Your task to perform on an android device: turn on bluetooth scan Image 0: 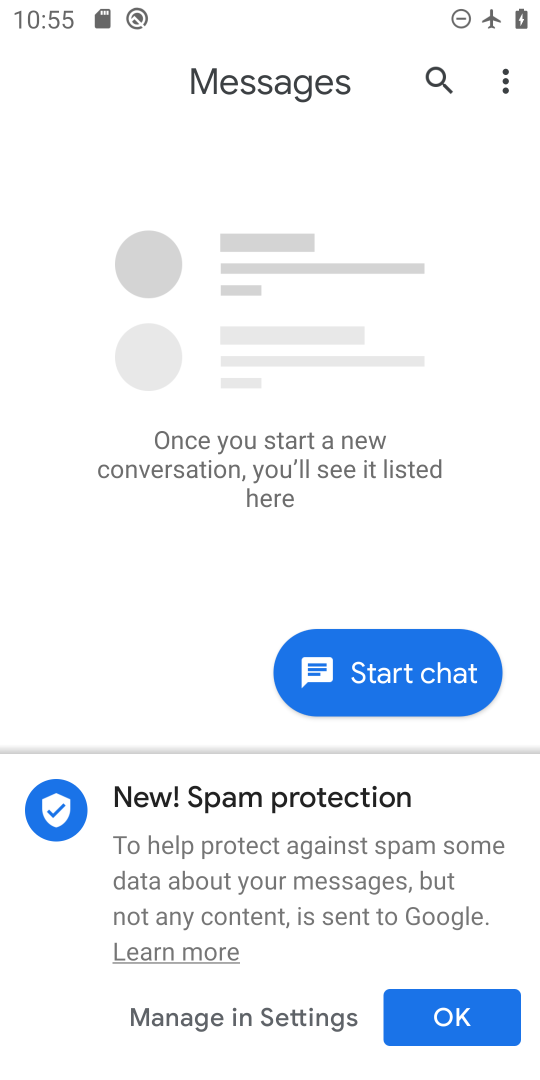
Step 0: press home button
Your task to perform on an android device: turn on bluetooth scan Image 1: 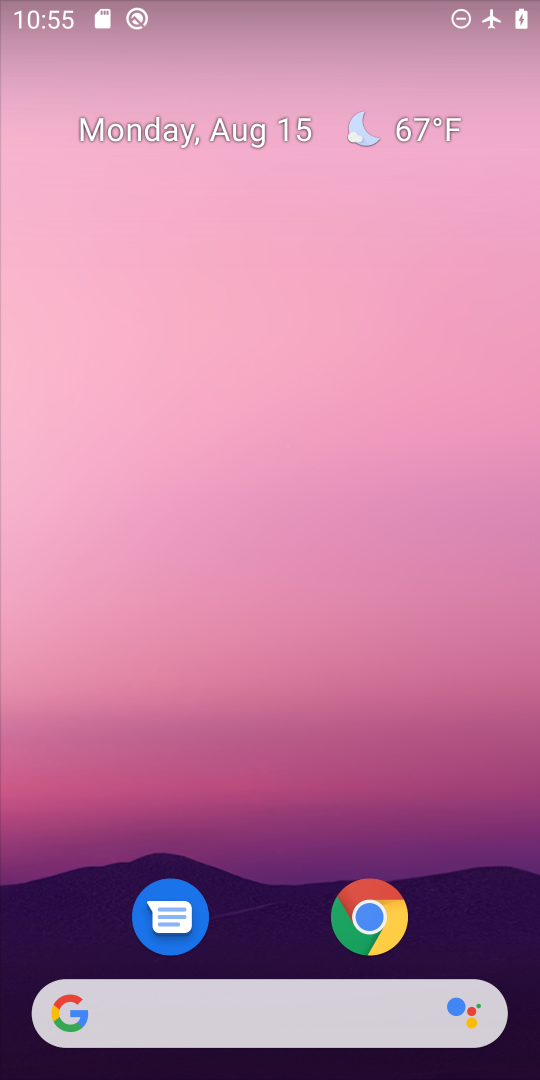
Step 1: drag from (314, 588) to (336, 83)
Your task to perform on an android device: turn on bluetooth scan Image 2: 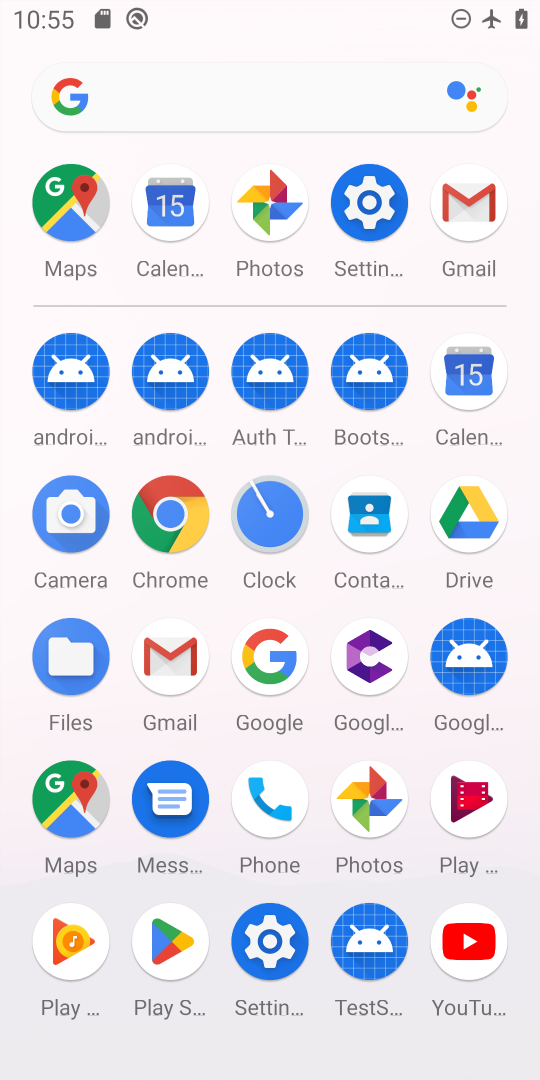
Step 2: click (365, 199)
Your task to perform on an android device: turn on bluetooth scan Image 3: 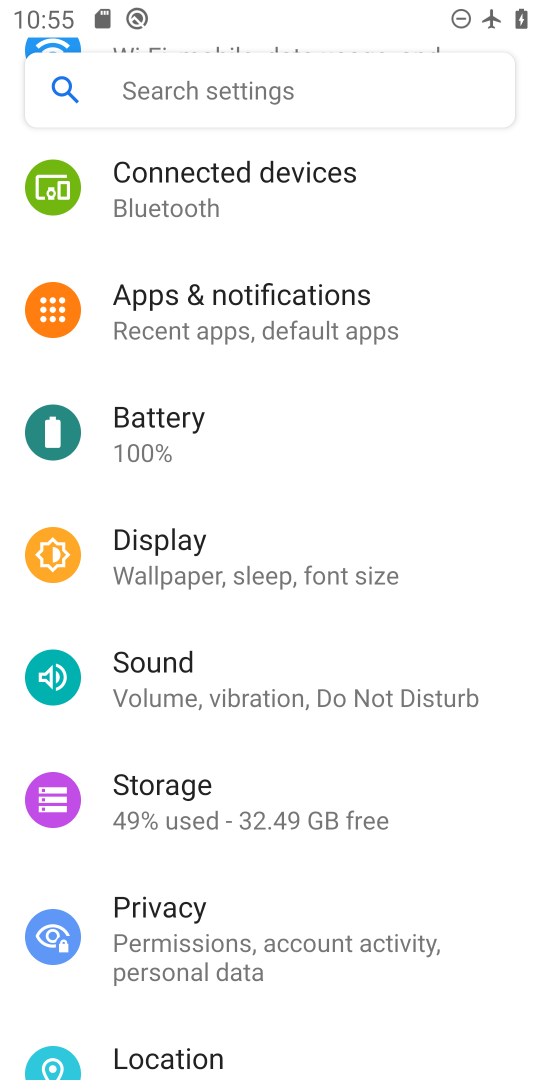
Step 3: drag from (285, 743) to (281, 190)
Your task to perform on an android device: turn on bluetooth scan Image 4: 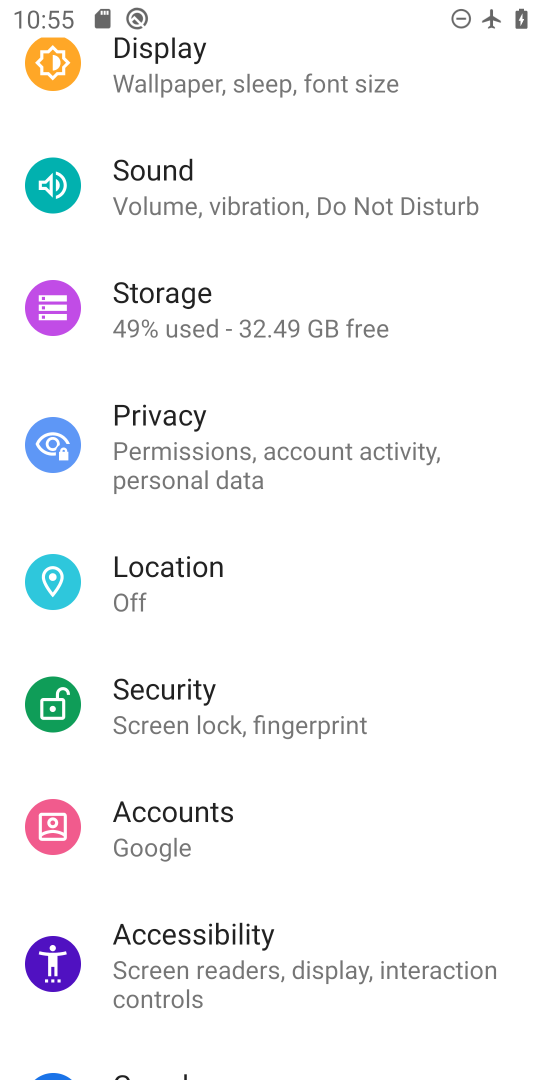
Step 4: click (274, 568)
Your task to perform on an android device: turn on bluetooth scan Image 5: 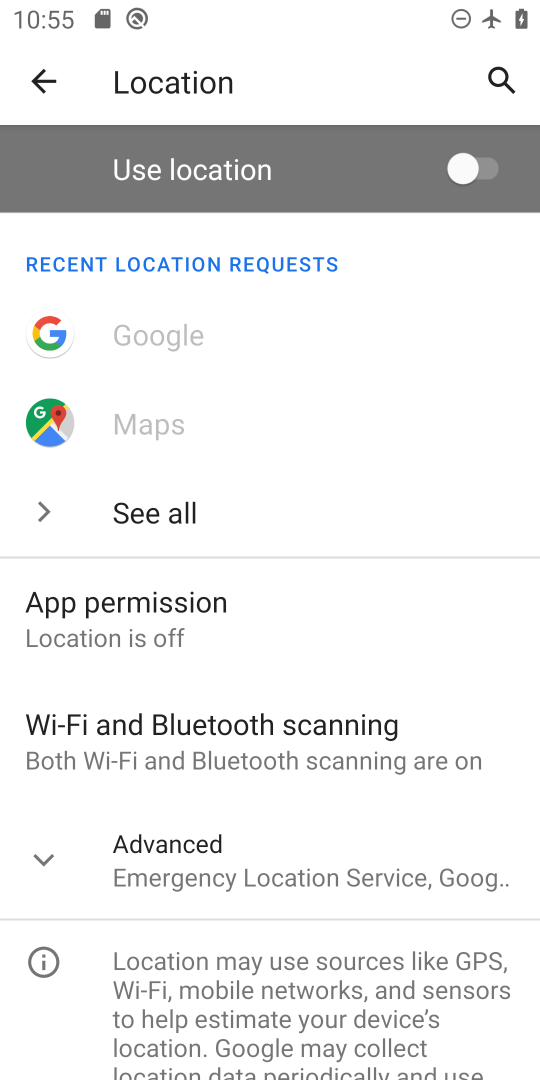
Step 5: click (294, 728)
Your task to perform on an android device: turn on bluetooth scan Image 6: 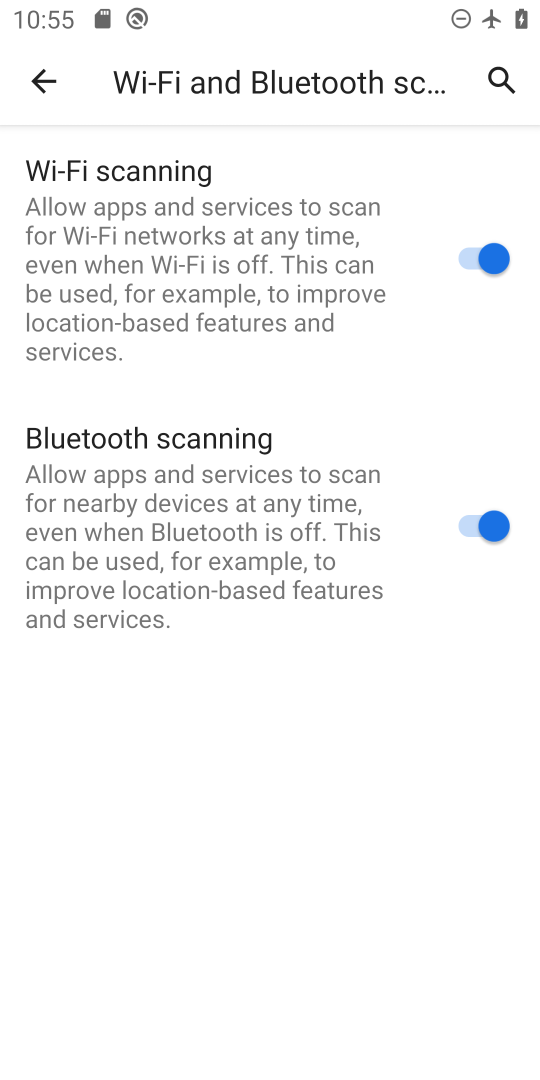
Step 6: task complete